Your task to perform on an android device: install app "Pluto TV - Live TV and Movies" Image 0: 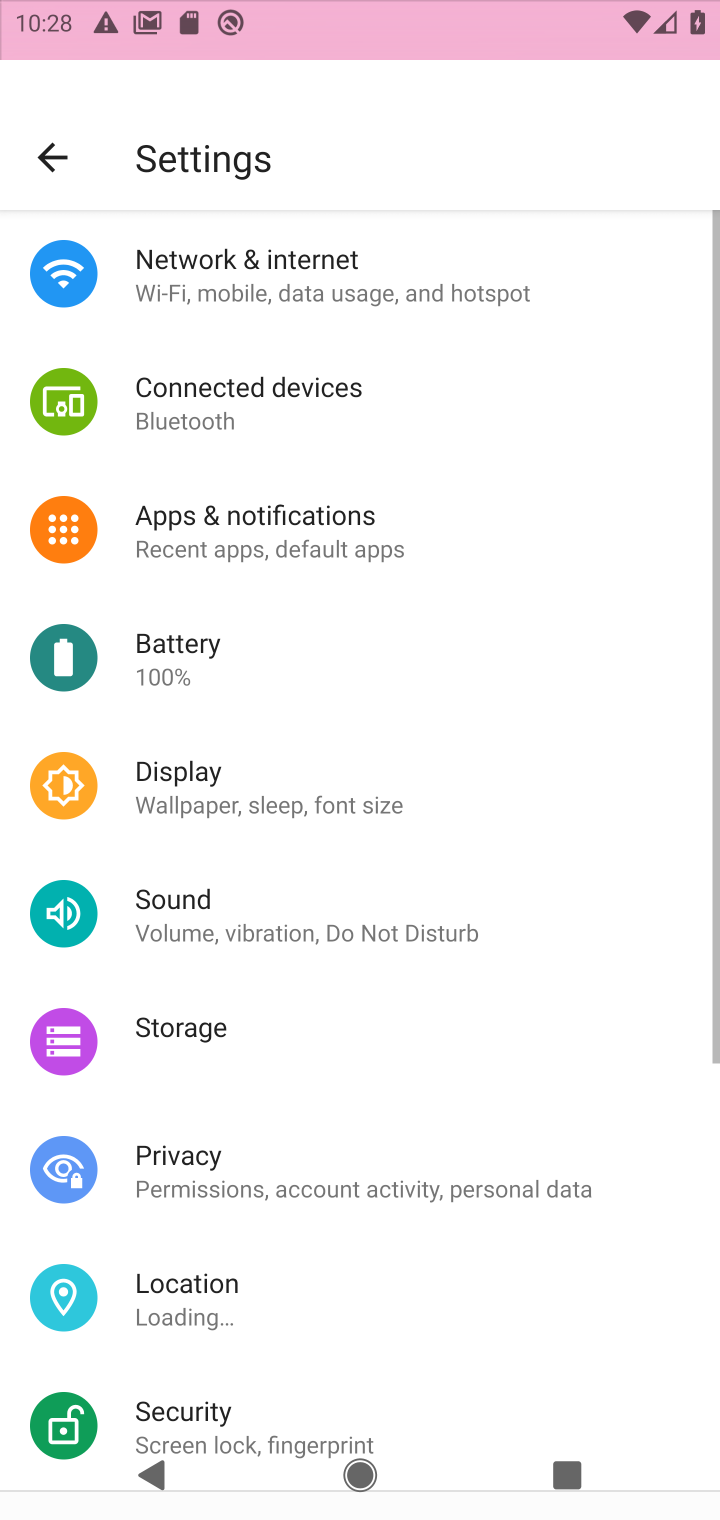
Step 0: press back button
Your task to perform on an android device: install app "Pluto TV - Live TV and Movies" Image 1: 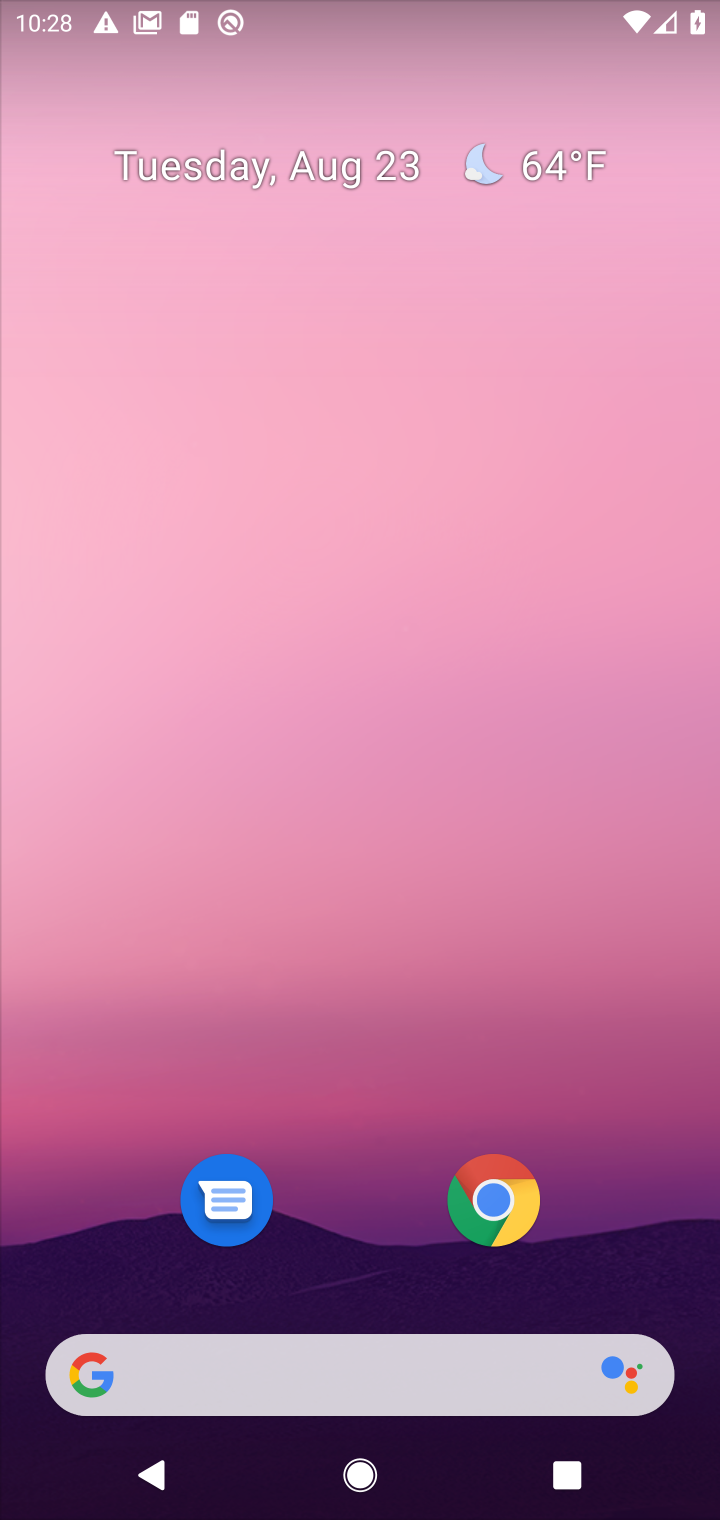
Step 1: drag from (351, 1205) to (645, 1002)
Your task to perform on an android device: install app "Pluto TV - Live TV and Movies" Image 2: 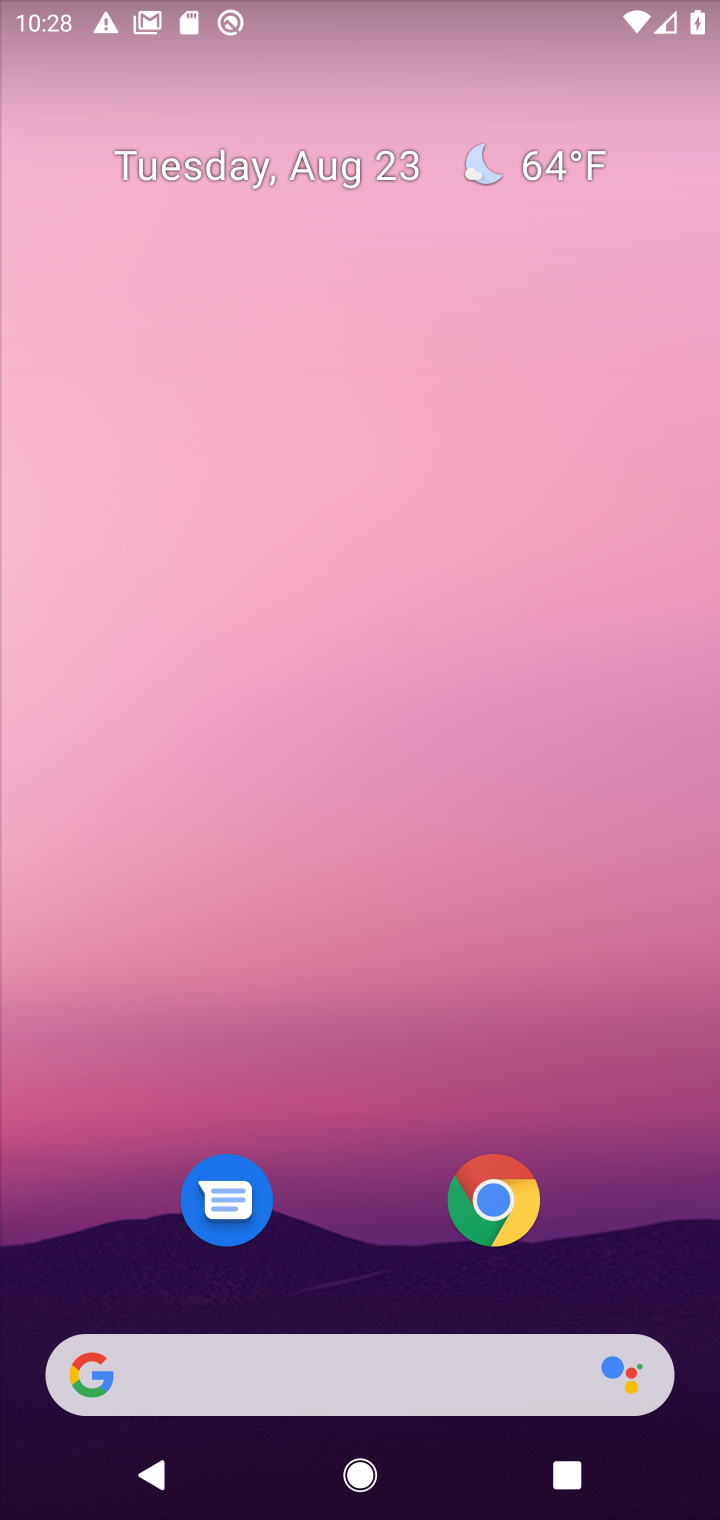
Step 2: drag from (396, 1195) to (656, 590)
Your task to perform on an android device: install app "Pluto TV - Live TV and Movies" Image 3: 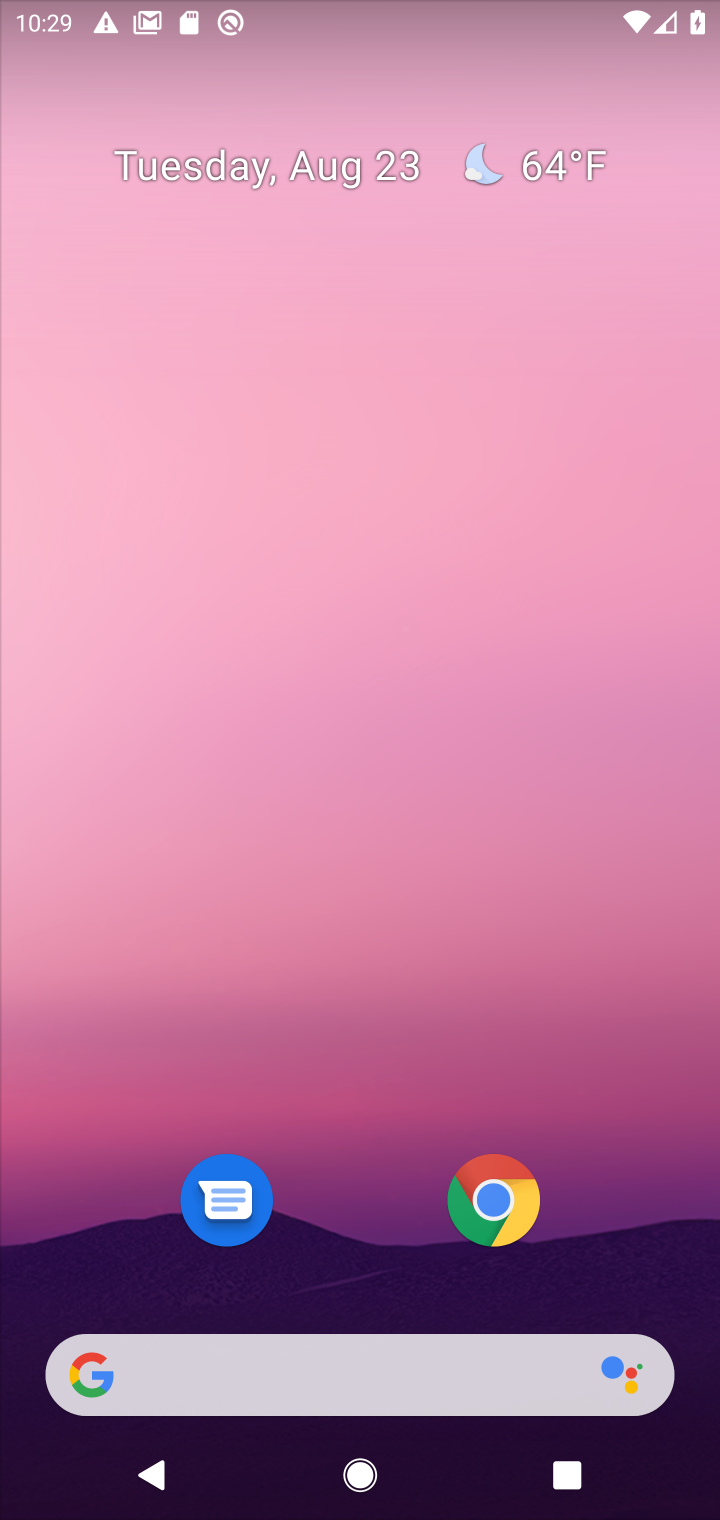
Step 3: drag from (390, 1300) to (557, 41)
Your task to perform on an android device: install app "Pluto TV - Live TV and Movies" Image 4: 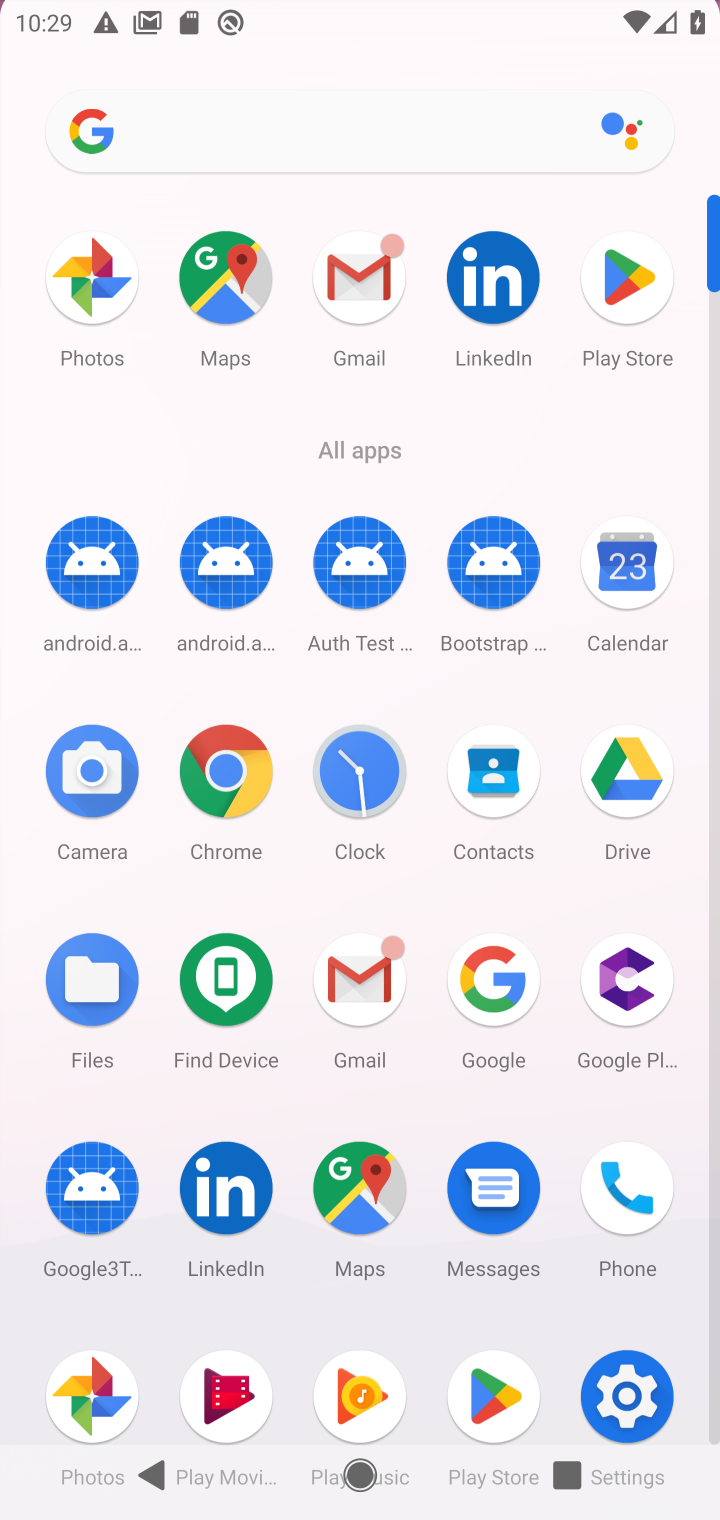
Step 4: click (607, 246)
Your task to perform on an android device: install app "Pluto TV - Live TV and Movies" Image 5: 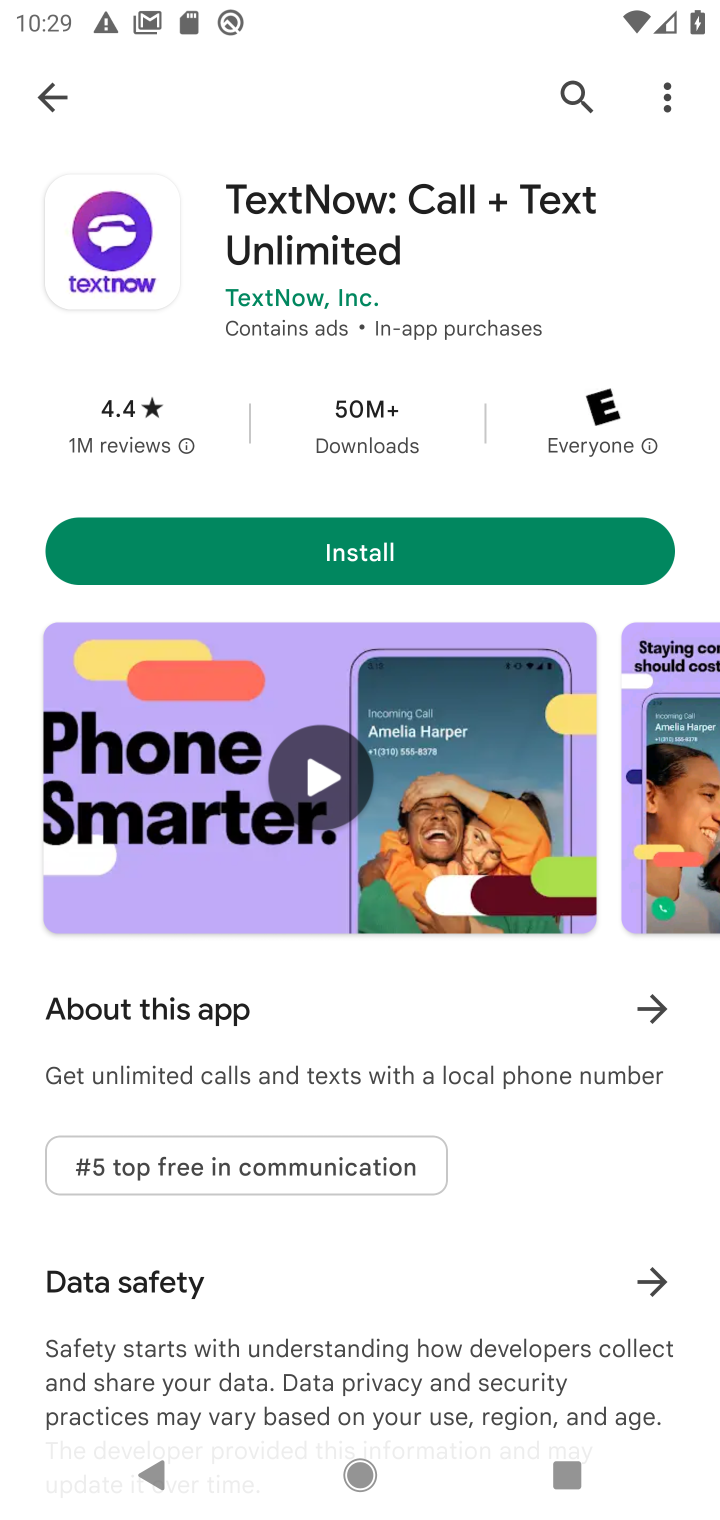
Step 5: click (41, 89)
Your task to perform on an android device: install app "Pluto TV - Live TV and Movies" Image 6: 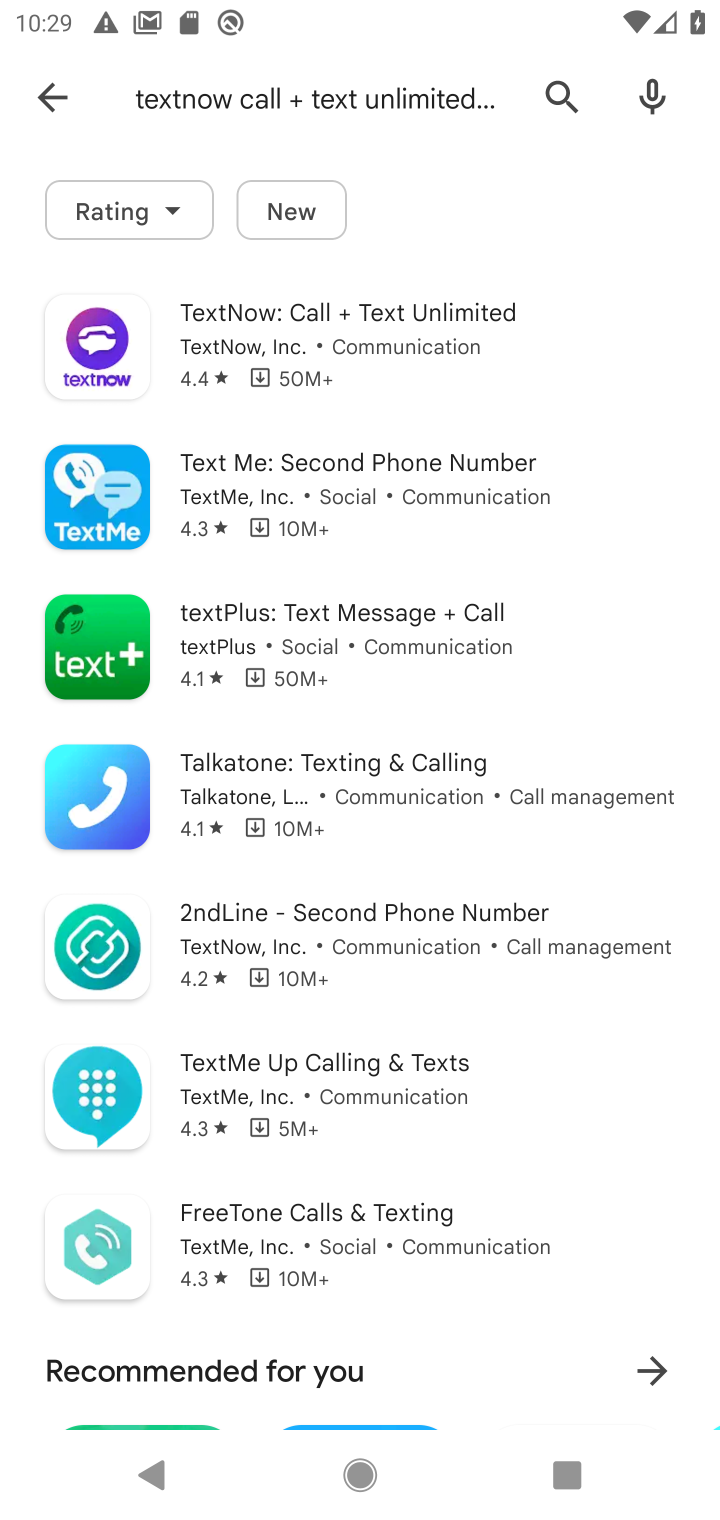
Step 6: click (41, 89)
Your task to perform on an android device: install app "Pluto TV - Live TV and Movies" Image 7: 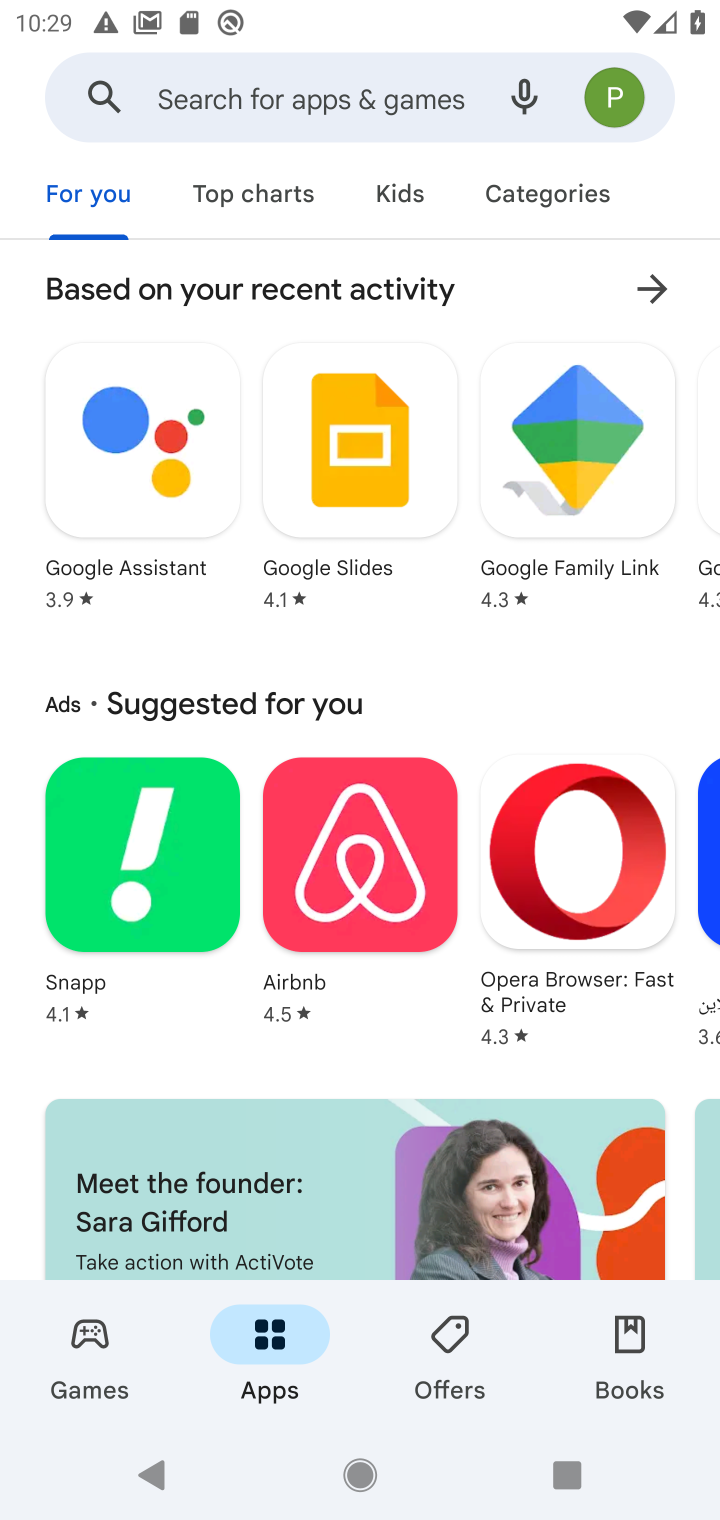
Step 7: click (216, 105)
Your task to perform on an android device: install app "Pluto TV - Live TV and Movies" Image 8: 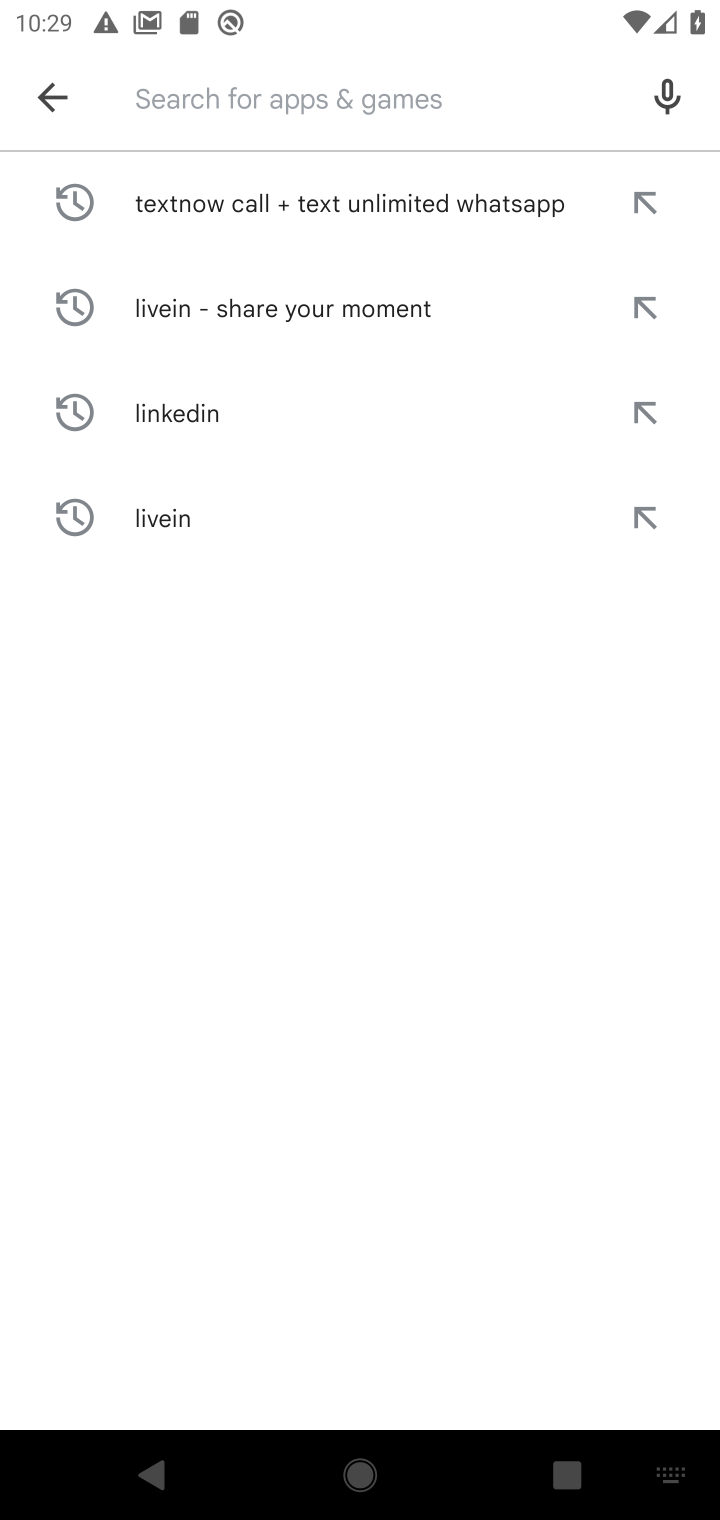
Step 8: type "Pluto"
Your task to perform on an android device: install app "Pluto TV - Live TV and Movies" Image 9: 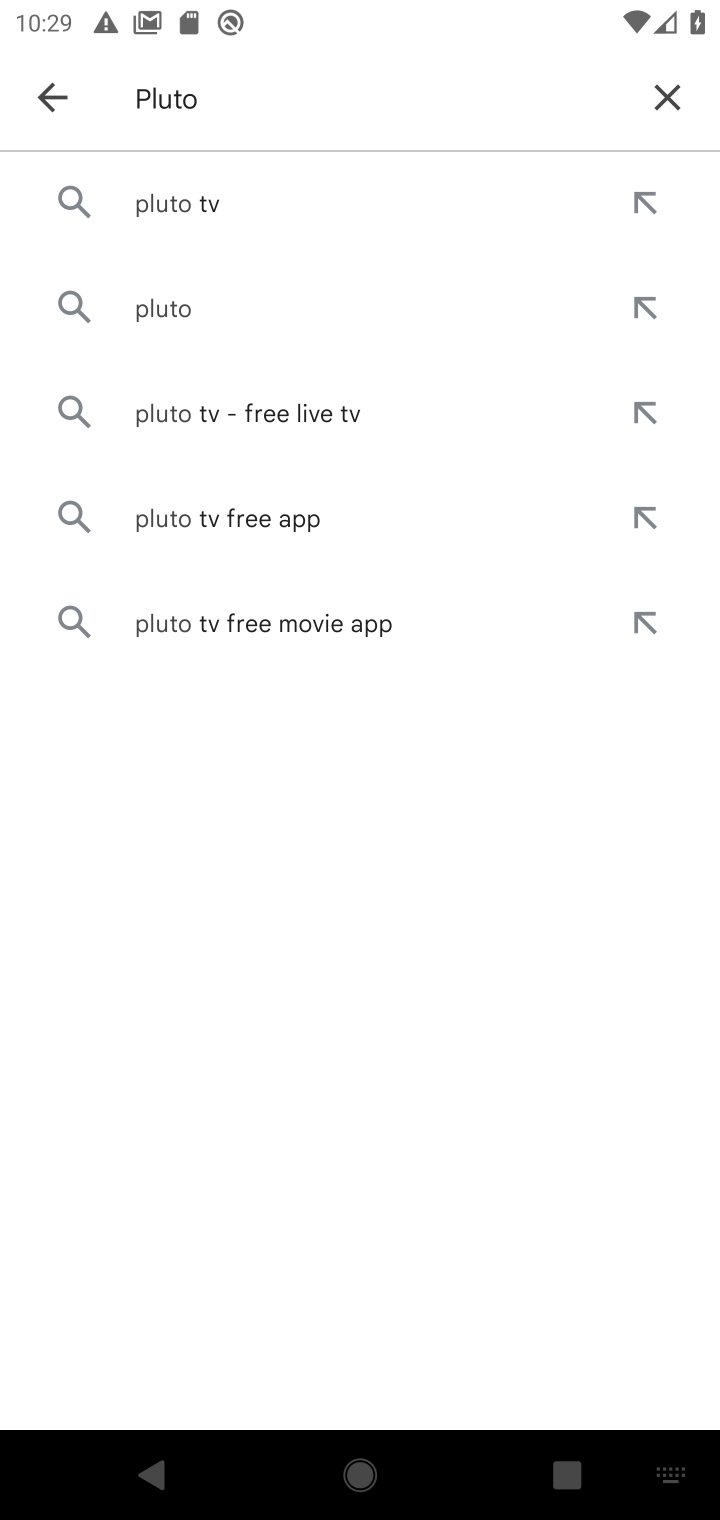
Step 9: click (193, 218)
Your task to perform on an android device: install app "Pluto TV - Live TV and Movies" Image 10: 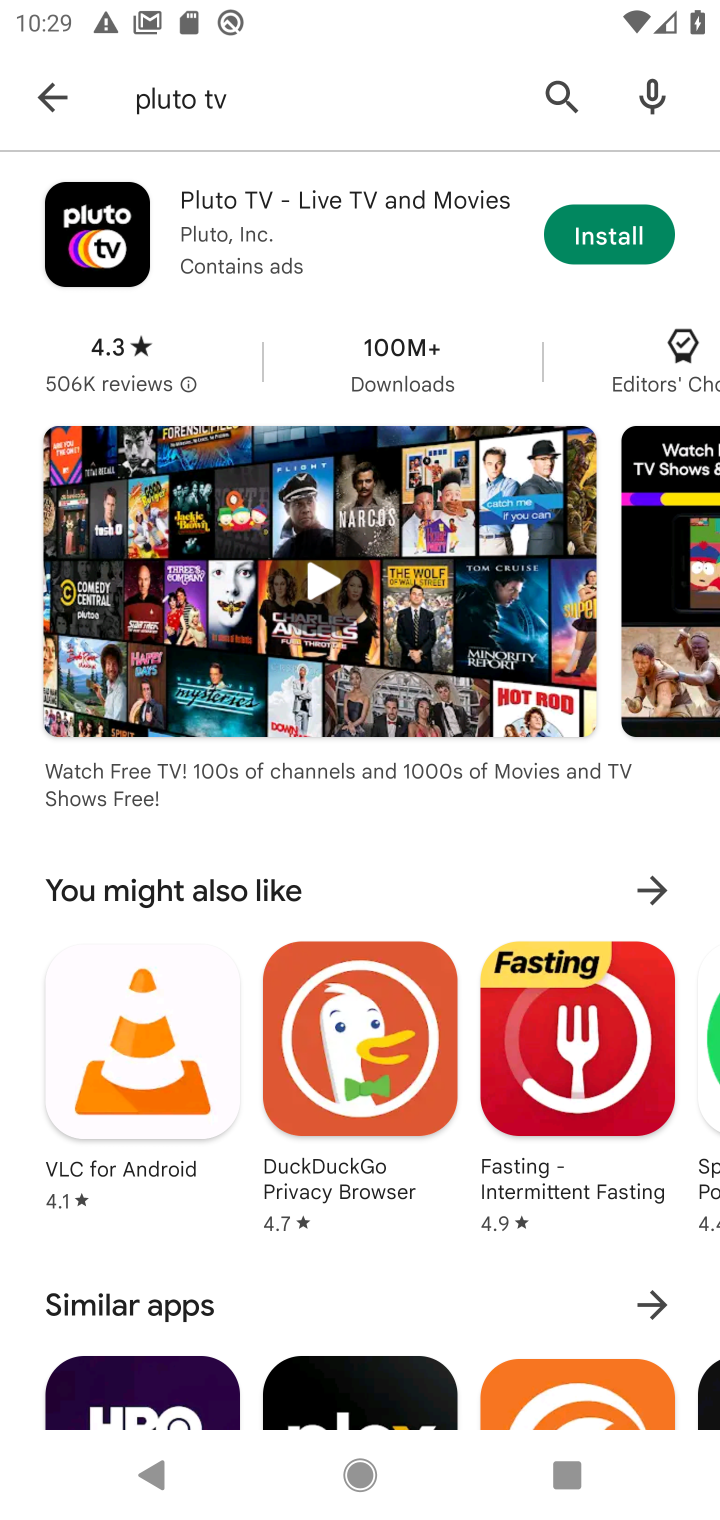
Step 10: click (572, 237)
Your task to perform on an android device: install app "Pluto TV - Live TV and Movies" Image 11: 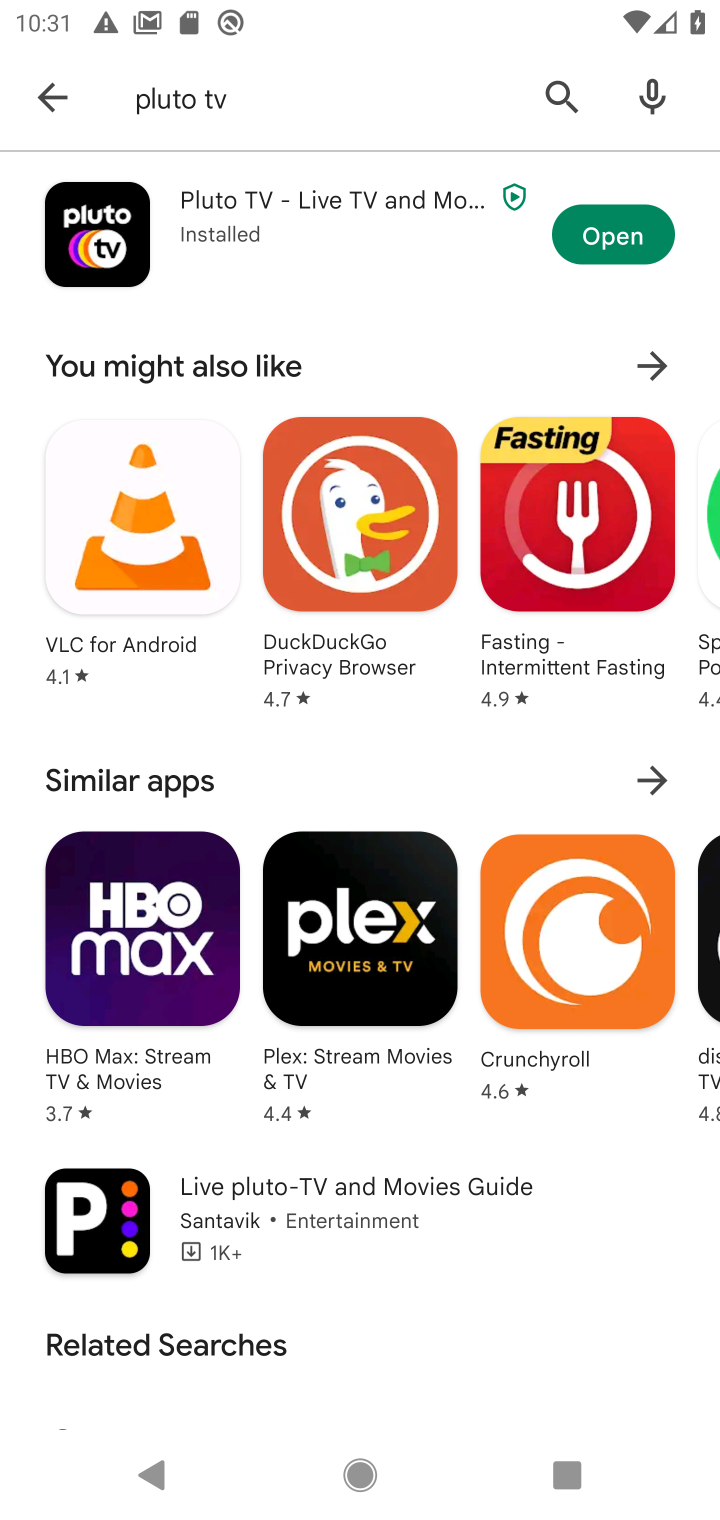
Step 11: task complete